Your task to perform on an android device: Open calendar and show me the fourth week of next month Image 0: 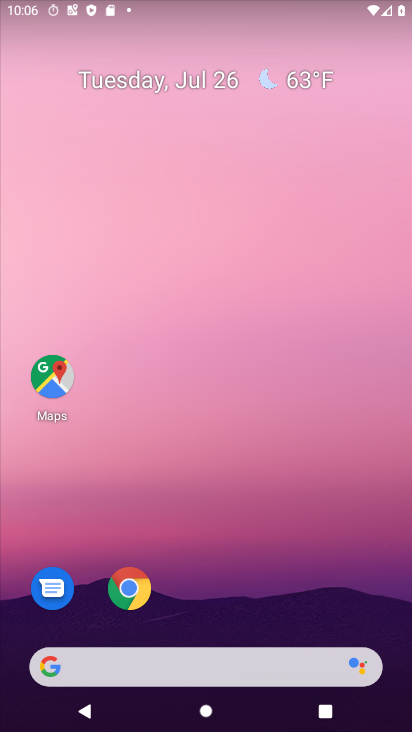
Step 0: click (119, 85)
Your task to perform on an android device: Open calendar and show me the fourth week of next month Image 1: 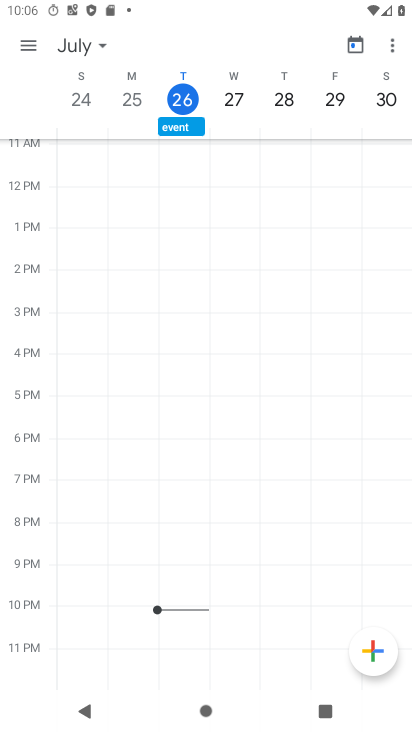
Step 1: click (119, 85)
Your task to perform on an android device: Open calendar and show me the fourth week of next month Image 2: 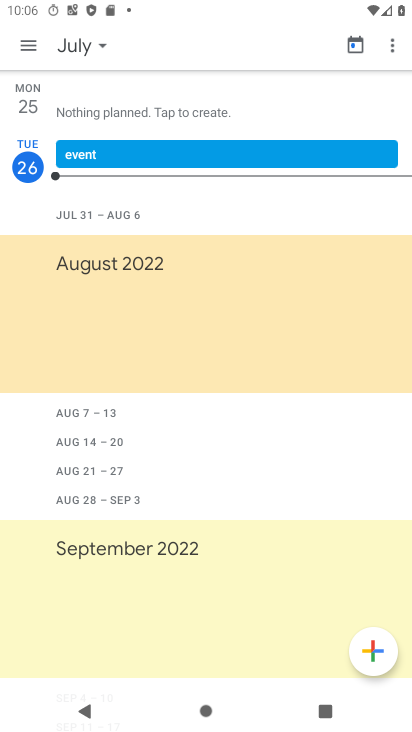
Step 2: click (73, 43)
Your task to perform on an android device: Open calendar and show me the fourth week of next month Image 3: 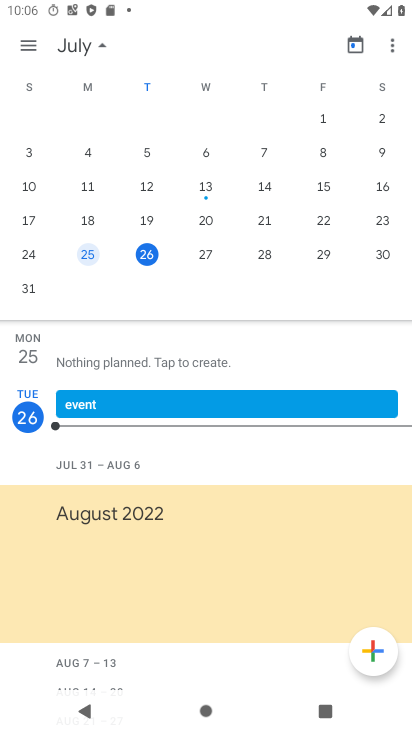
Step 3: drag from (409, 259) to (229, 255)
Your task to perform on an android device: Open calendar and show me the fourth week of next month Image 4: 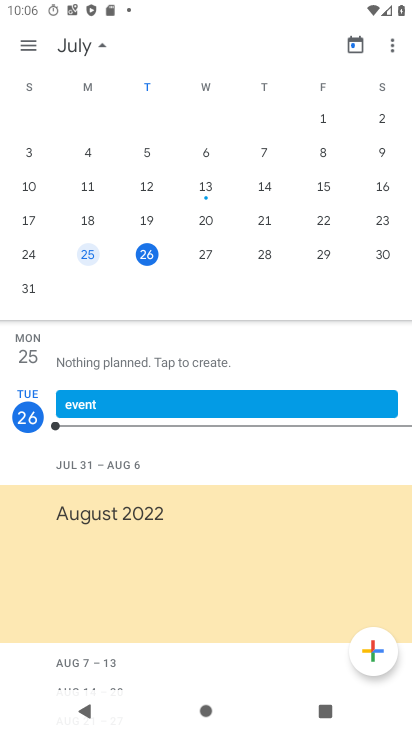
Step 4: drag from (382, 279) to (15, 232)
Your task to perform on an android device: Open calendar and show me the fourth week of next month Image 5: 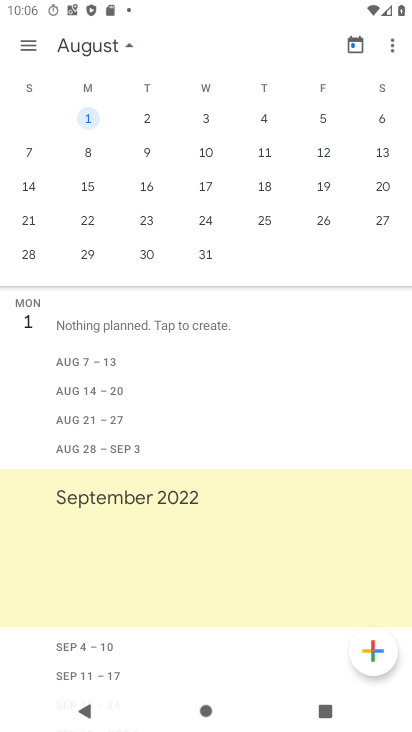
Step 5: click (384, 225)
Your task to perform on an android device: Open calendar and show me the fourth week of next month Image 6: 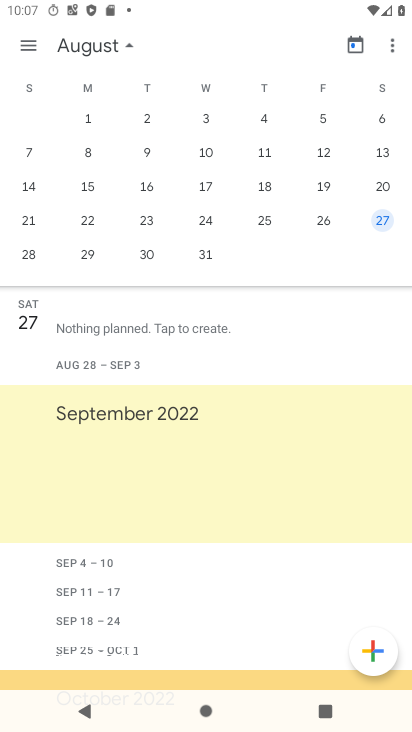
Step 6: task complete